Your task to perform on an android device: turn vacation reply on in the gmail app Image 0: 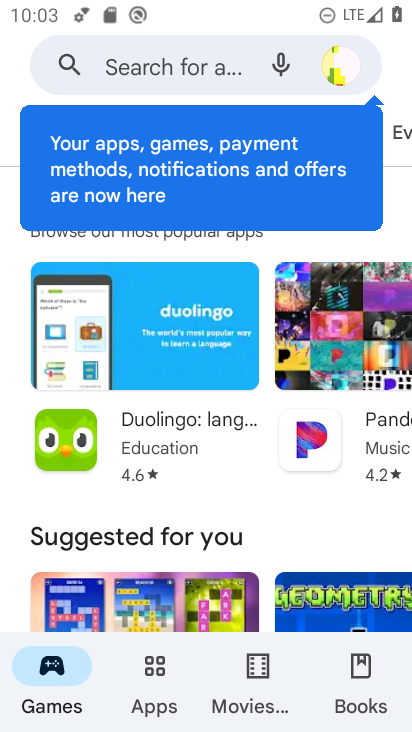
Step 0: press home button
Your task to perform on an android device: turn vacation reply on in the gmail app Image 1: 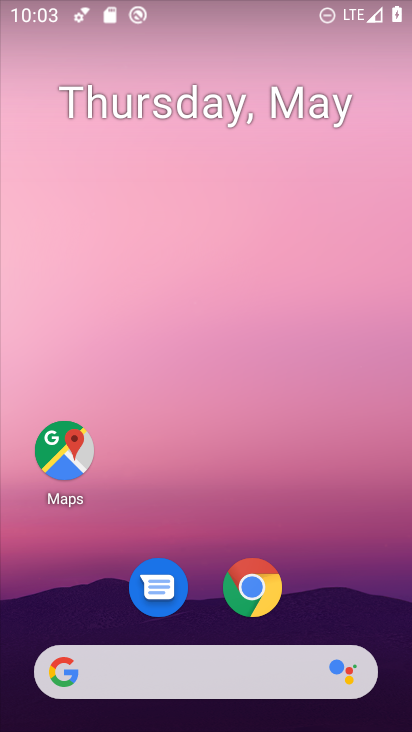
Step 1: drag from (354, 621) to (363, 10)
Your task to perform on an android device: turn vacation reply on in the gmail app Image 2: 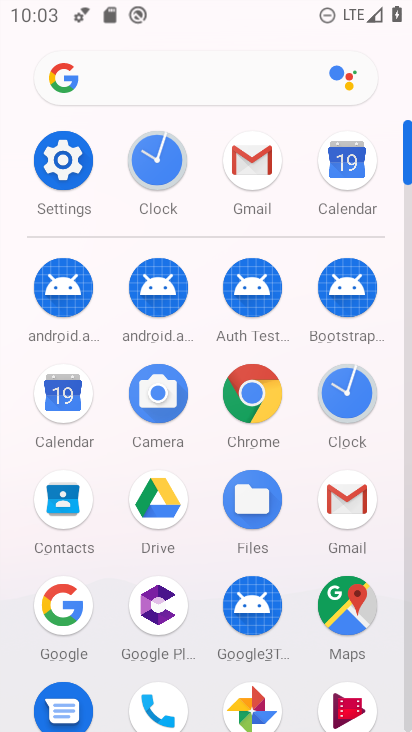
Step 2: click (253, 166)
Your task to perform on an android device: turn vacation reply on in the gmail app Image 3: 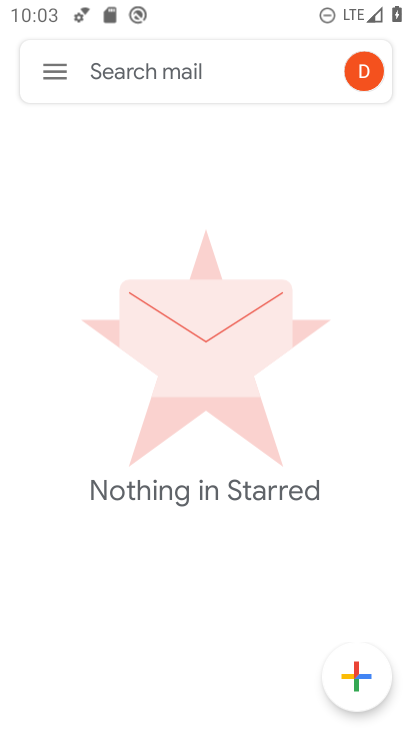
Step 3: click (57, 71)
Your task to perform on an android device: turn vacation reply on in the gmail app Image 4: 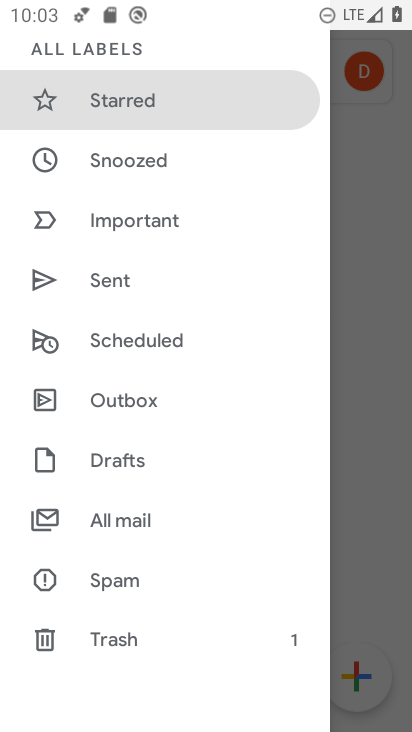
Step 4: drag from (212, 629) to (229, 264)
Your task to perform on an android device: turn vacation reply on in the gmail app Image 5: 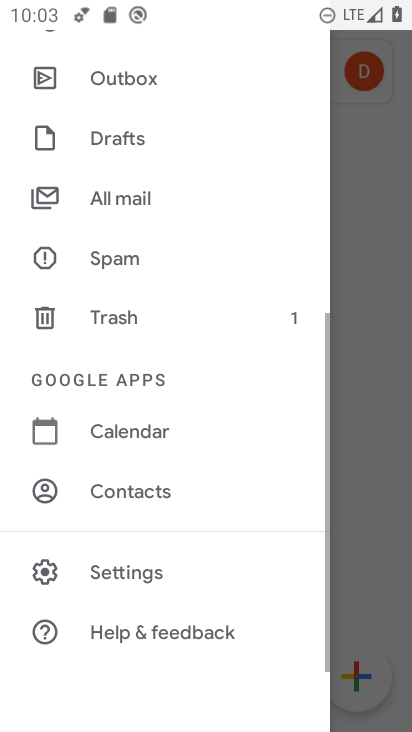
Step 5: click (135, 574)
Your task to perform on an android device: turn vacation reply on in the gmail app Image 6: 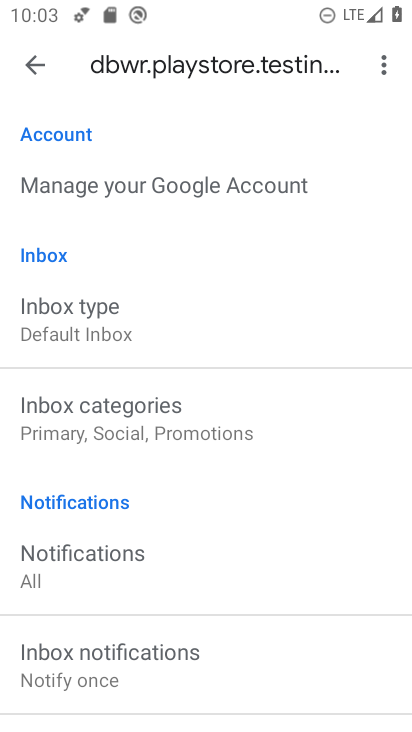
Step 6: drag from (200, 494) to (209, 123)
Your task to perform on an android device: turn vacation reply on in the gmail app Image 7: 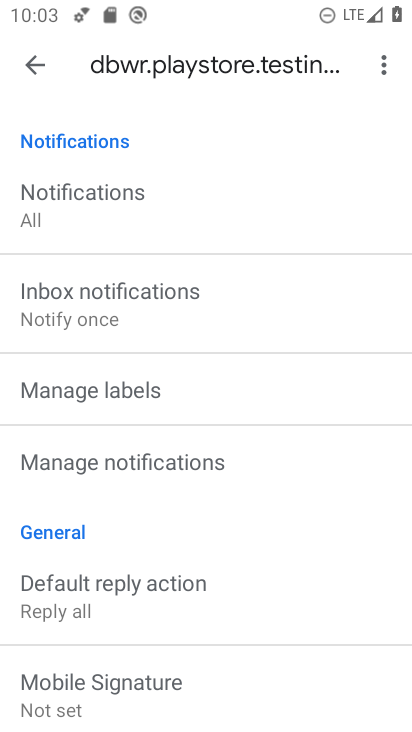
Step 7: drag from (174, 559) to (184, 194)
Your task to perform on an android device: turn vacation reply on in the gmail app Image 8: 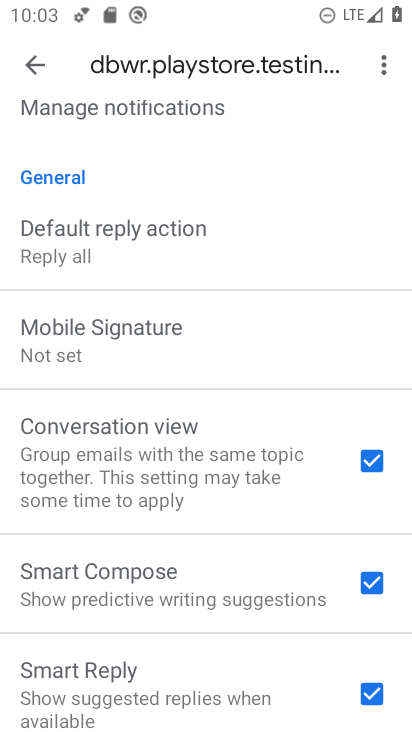
Step 8: drag from (158, 560) to (152, 233)
Your task to perform on an android device: turn vacation reply on in the gmail app Image 9: 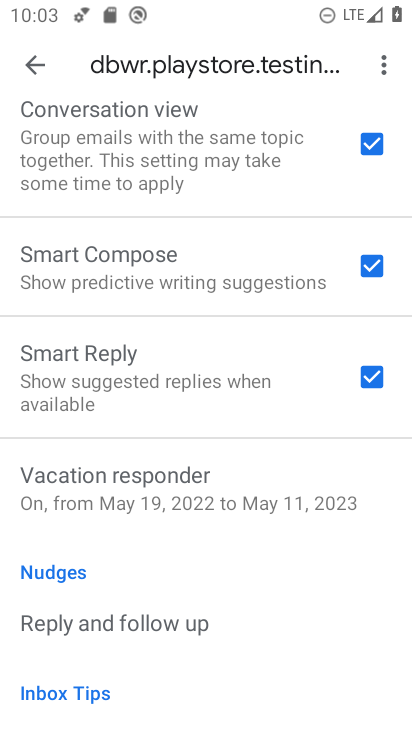
Step 9: click (89, 491)
Your task to perform on an android device: turn vacation reply on in the gmail app Image 10: 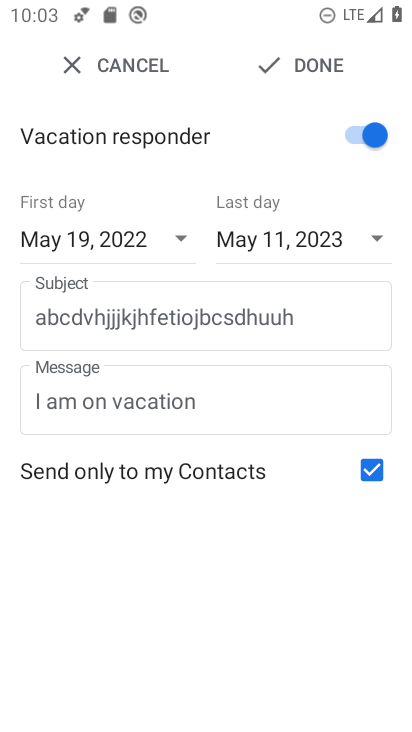
Step 10: click (295, 55)
Your task to perform on an android device: turn vacation reply on in the gmail app Image 11: 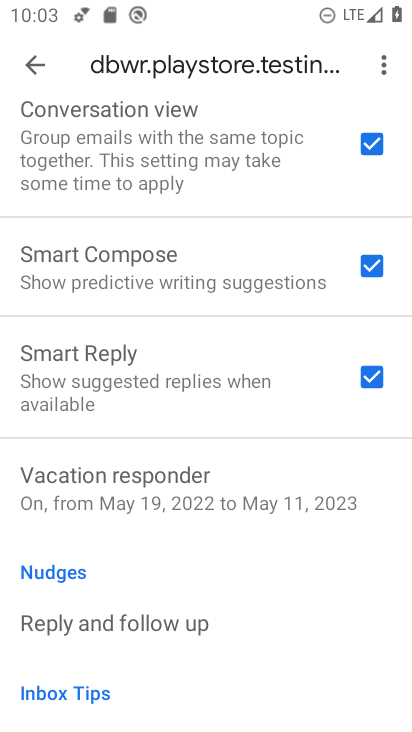
Step 11: task complete